Your task to perform on an android device: open app "Pluto TV - Live TV and Movies" (install if not already installed) and enter user name: "wools@yahoo.com" and password: "misplacing" Image 0: 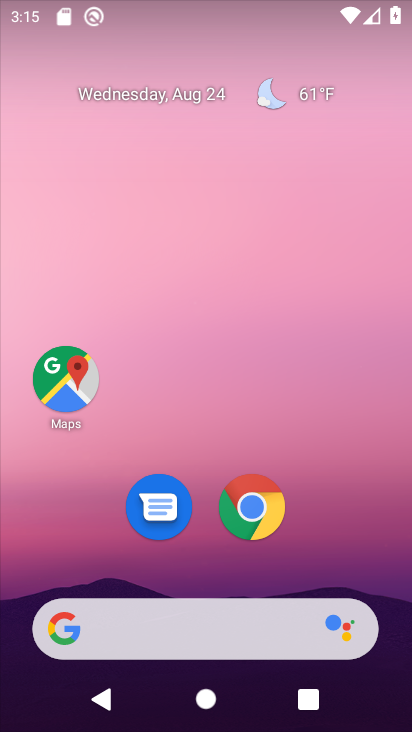
Step 0: drag from (176, 639) to (226, 206)
Your task to perform on an android device: open app "Pluto TV - Live TV and Movies" (install if not already installed) and enter user name: "wools@yahoo.com" and password: "misplacing" Image 1: 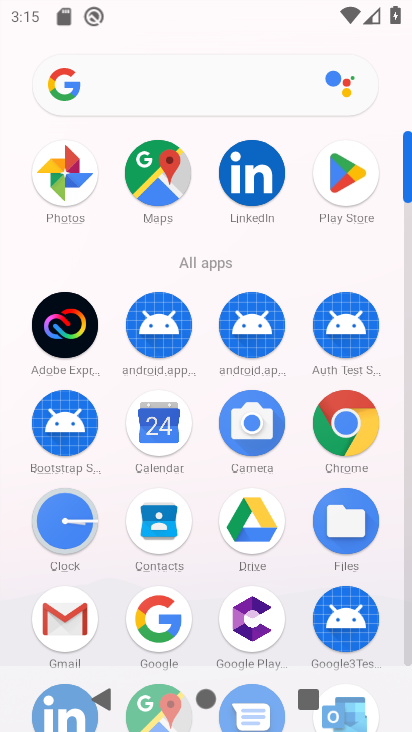
Step 1: click (360, 176)
Your task to perform on an android device: open app "Pluto TV - Live TV and Movies" (install if not already installed) and enter user name: "wools@yahoo.com" and password: "misplacing" Image 2: 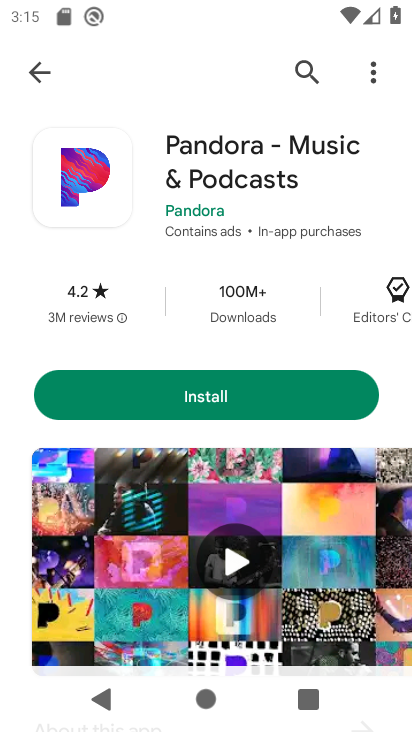
Step 2: press back button
Your task to perform on an android device: open app "Pluto TV - Live TV and Movies" (install if not already installed) and enter user name: "wools@yahoo.com" and password: "misplacing" Image 3: 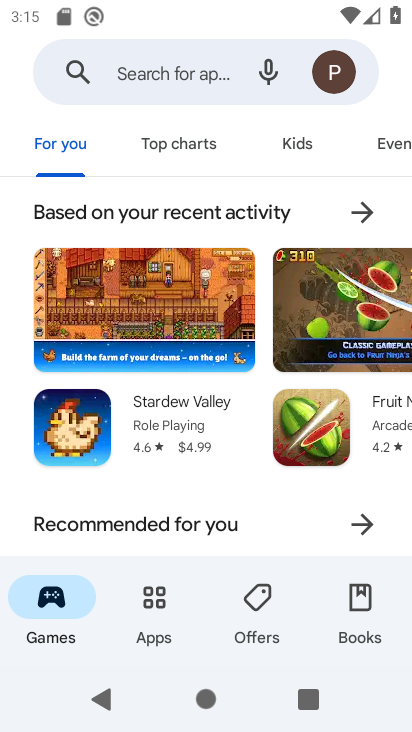
Step 3: click (185, 73)
Your task to perform on an android device: open app "Pluto TV - Live TV and Movies" (install if not already installed) and enter user name: "wools@yahoo.com" and password: "misplacing" Image 4: 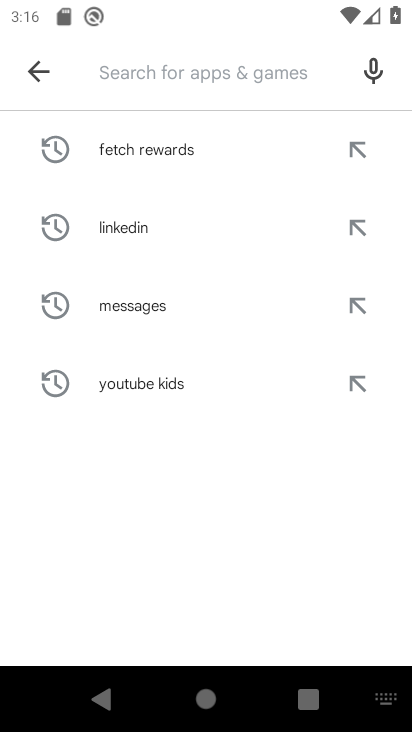
Step 4: type "Pluto TV - Live TV and Movies"
Your task to perform on an android device: open app "Pluto TV - Live TV and Movies" (install if not already installed) and enter user name: "wools@yahoo.com" and password: "misplacing" Image 5: 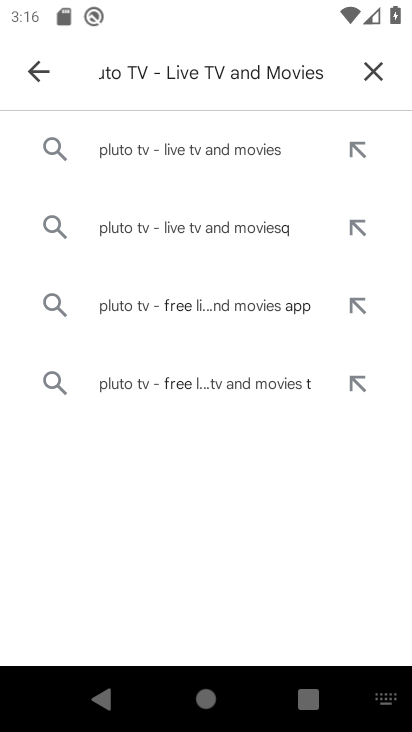
Step 5: click (264, 150)
Your task to perform on an android device: open app "Pluto TV - Live TV and Movies" (install if not already installed) and enter user name: "wools@yahoo.com" and password: "misplacing" Image 6: 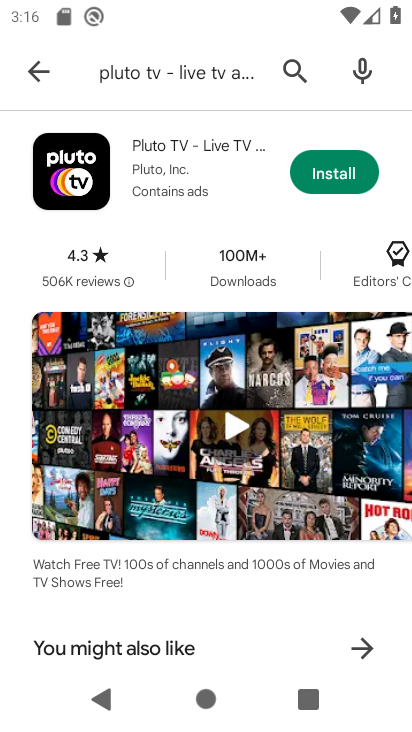
Step 6: click (328, 174)
Your task to perform on an android device: open app "Pluto TV - Live TV and Movies" (install if not already installed) and enter user name: "wools@yahoo.com" and password: "misplacing" Image 7: 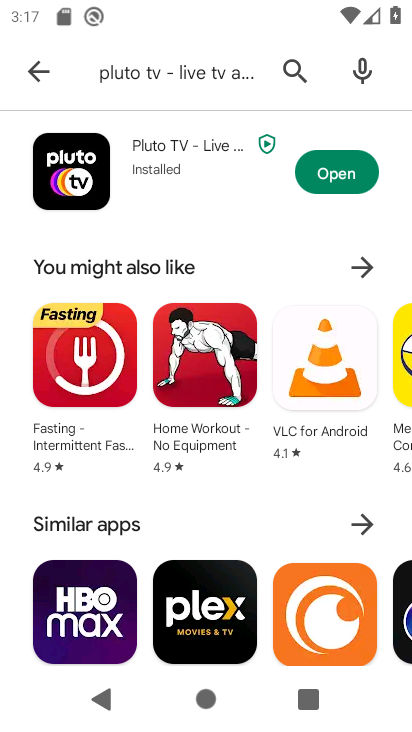
Step 7: click (328, 174)
Your task to perform on an android device: open app "Pluto TV - Live TV and Movies" (install if not already installed) and enter user name: "wools@yahoo.com" and password: "misplacing" Image 8: 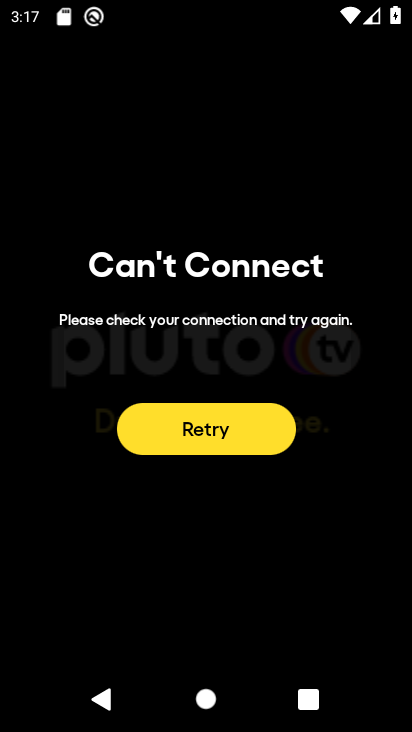
Step 8: click (224, 439)
Your task to perform on an android device: open app "Pluto TV - Live TV and Movies" (install if not already installed) and enter user name: "wools@yahoo.com" and password: "misplacing" Image 9: 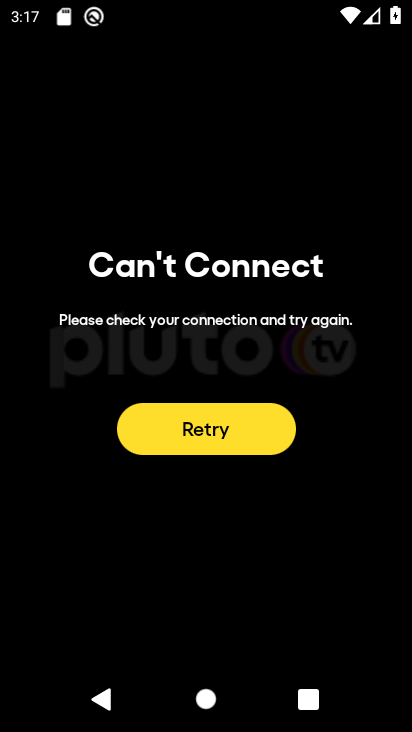
Step 9: task complete